Your task to perform on an android device: See recent photos Image 0: 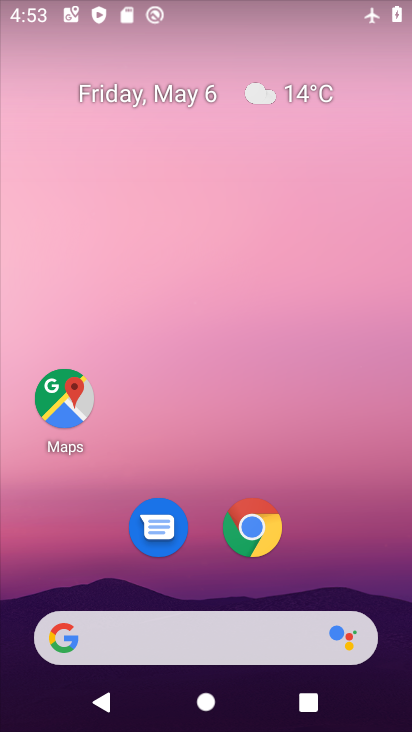
Step 0: drag from (230, 707) to (234, 212)
Your task to perform on an android device: See recent photos Image 1: 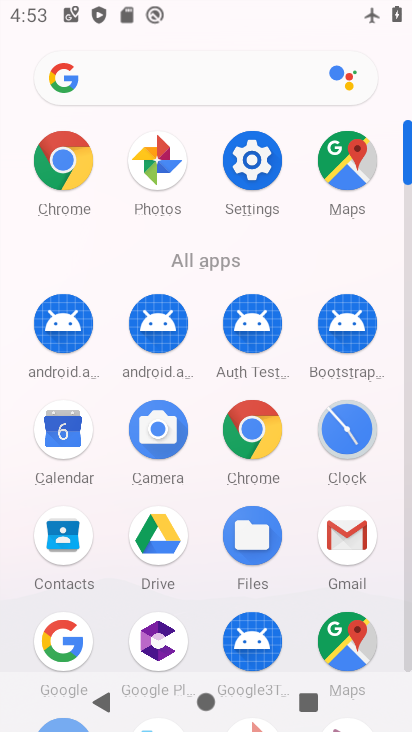
Step 1: drag from (202, 637) to (203, 280)
Your task to perform on an android device: See recent photos Image 2: 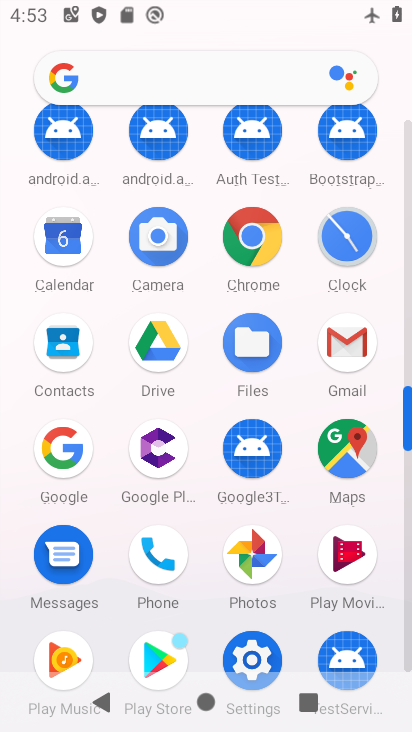
Step 2: click (255, 551)
Your task to perform on an android device: See recent photos Image 3: 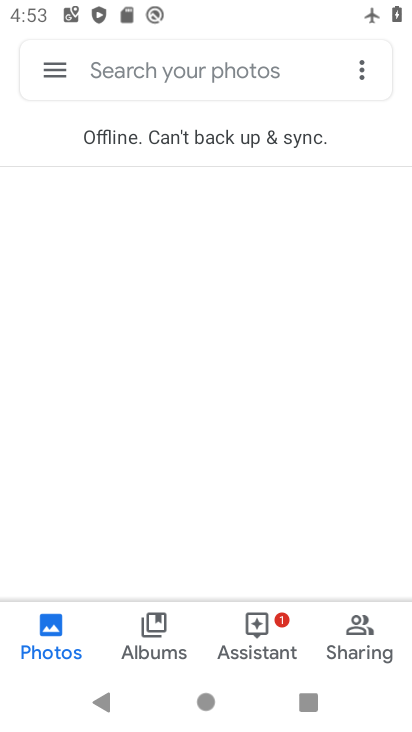
Step 3: task complete